Your task to perform on an android device: Open Youtube and go to the subscriptions tab Image 0: 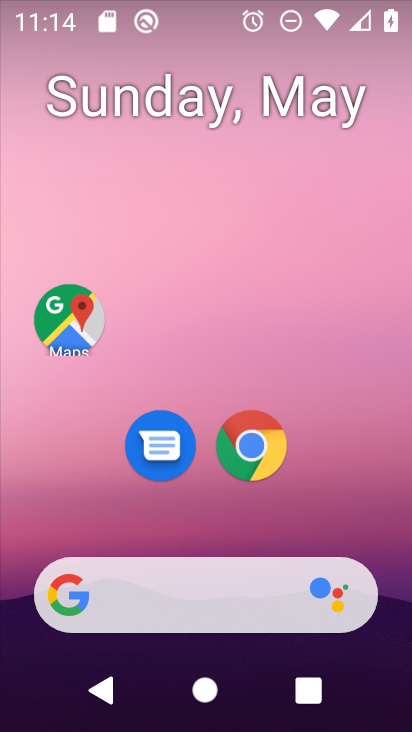
Step 0: drag from (211, 592) to (259, 87)
Your task to perform on an android device: Open Youtube and go to the subscriptions tab Image 1: 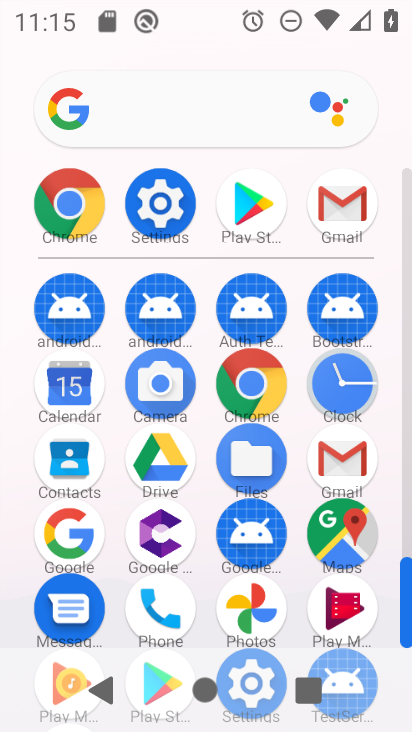
Step 1: drag from (292, 490) to (298, 170)
Your task to perform on an android device: Open Youtube and go to the subscriptions tab Image 2: 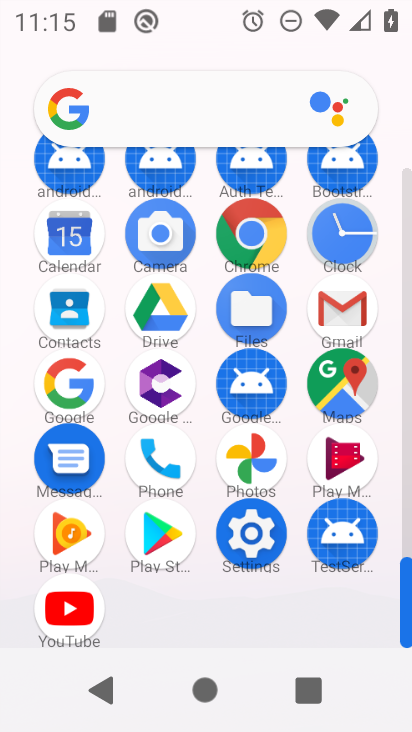
Step 2: click (90, 601)
Your task to perform on an android device: Open Youtube and go to the subscriptions tab Image 3: 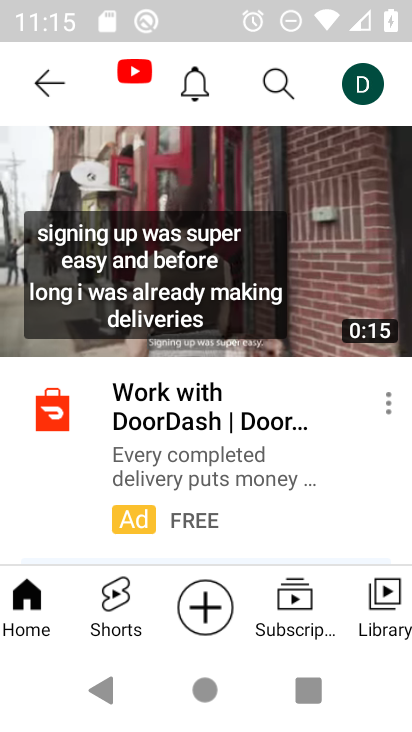
Step 3: click (294, 626)
Your task to perform on an android device: Open Youtube and go to the subscriptions tab Image 4: 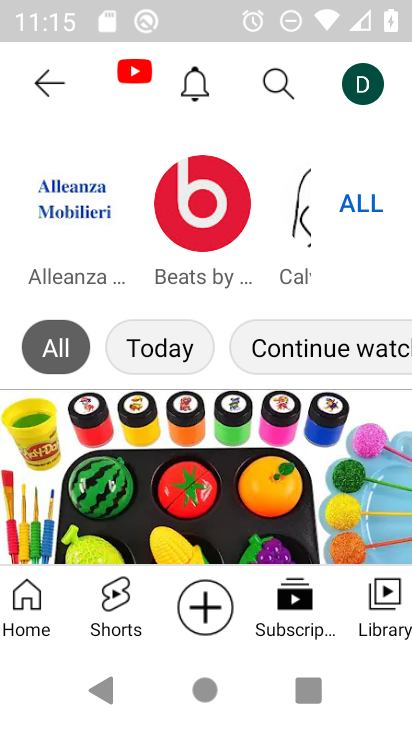
Step 4: task complete